Your task to perform on an android device: Show me recent news Image 0: 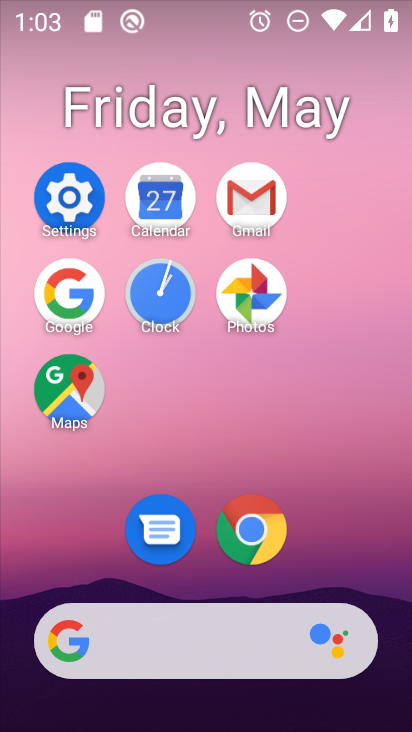
Step 0: click (80, 293)
Your task to perform on an android device: Show me recent news Image 1: 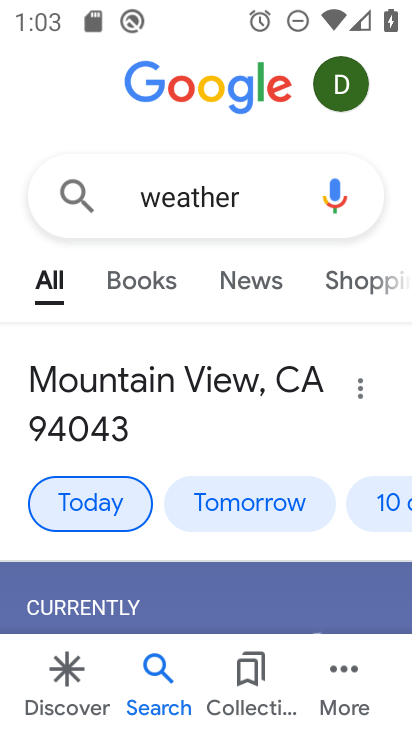
Step 1: click (274, 206)
Your task to perform on an android device: Show me recent news Image 2: 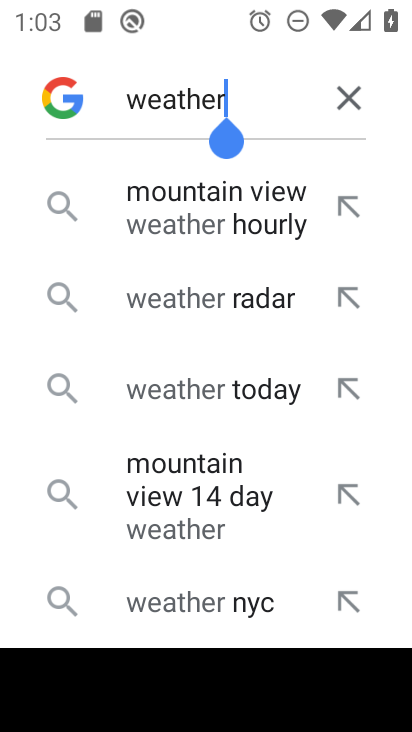
Step 2: click (347, 103)
Your task to perform on an android device: Show me recent news Image 3: 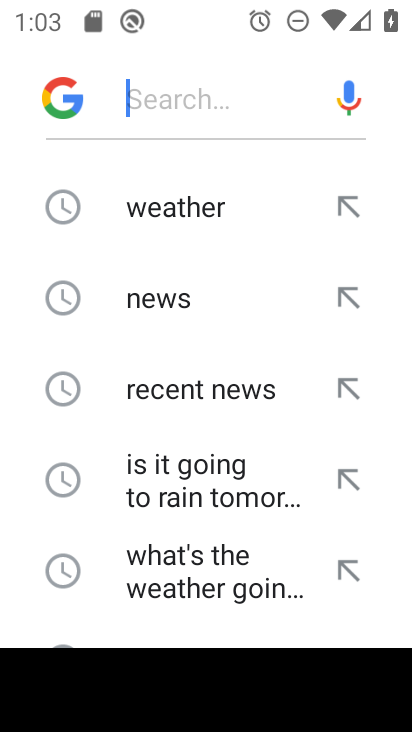
Step 3: click (173, 385)
Your task to perform on an android device: Show me recent news Image 4: 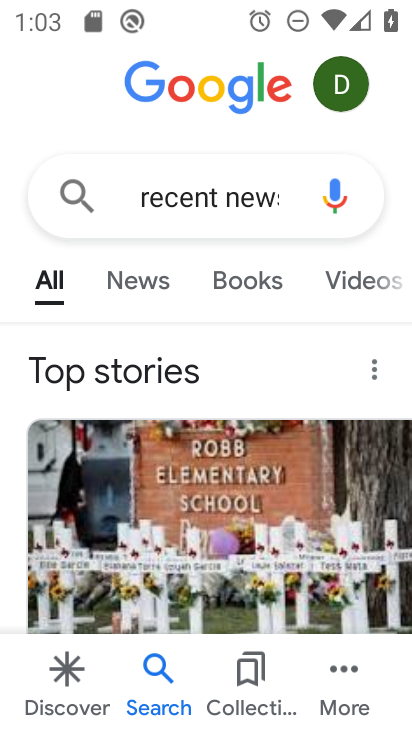
Step 4: task complete